Your task to perform on an android device: Do I have any events this weekend? Image 0: 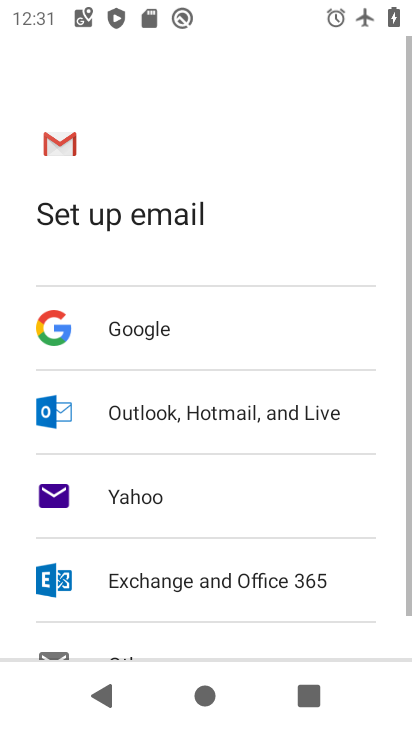
Step 0: press home button
Your task to perform on an android device: Do I have any events this weekend? Image 1: 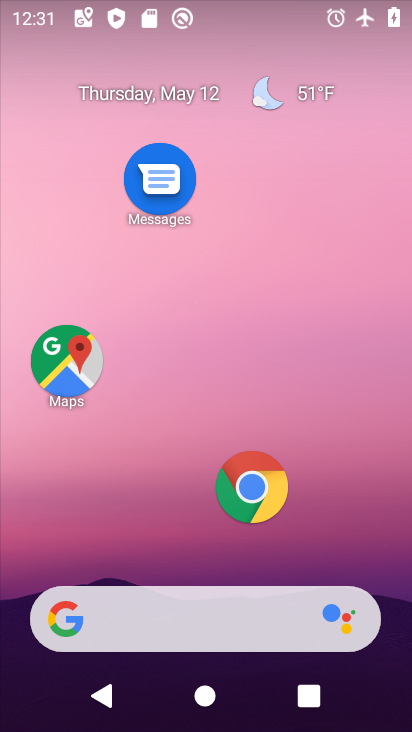
Step 1: drag from (189, 553) to (229, 142)
Your task to perform on an android device: Do I have any events this weekend? Image 2: 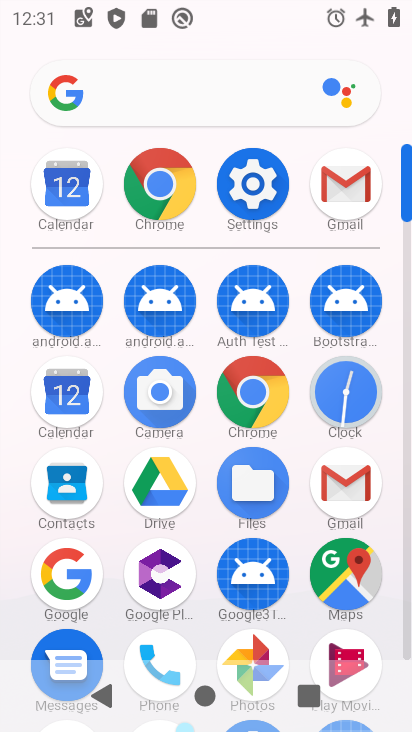
Step 2: click (83, 210)
Your task to perform on an android device: Do I have any events this weekend? Image 3: 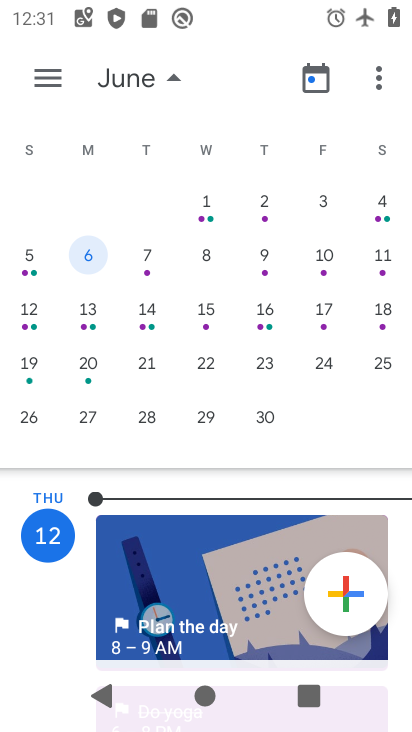
Step 3: click (371, 261)
Your task to perform on an android device: Do I have any events this weekend? Image 4: 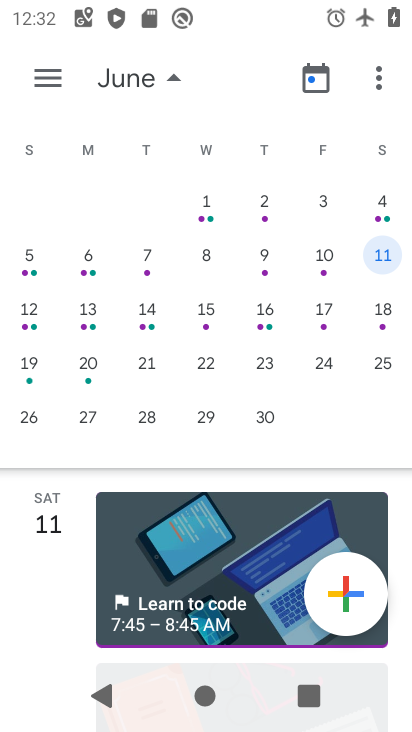
Step 4: task complete